Your task to perform on an android device: What is the recent news? Image 0: 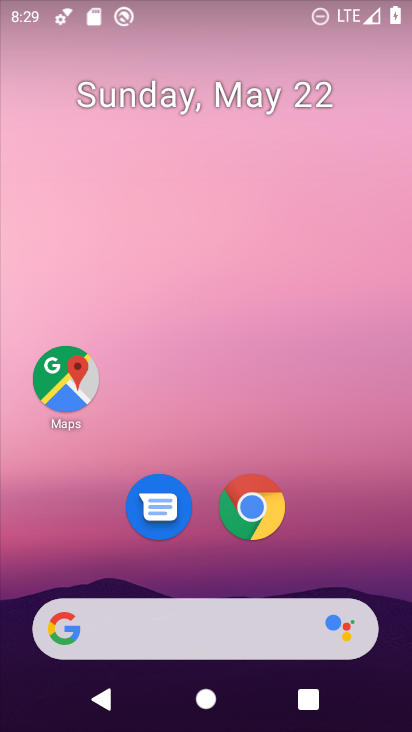
Step 0: click (251, 639)
Your task to perform on an android device: What is the recent news? Image 1: 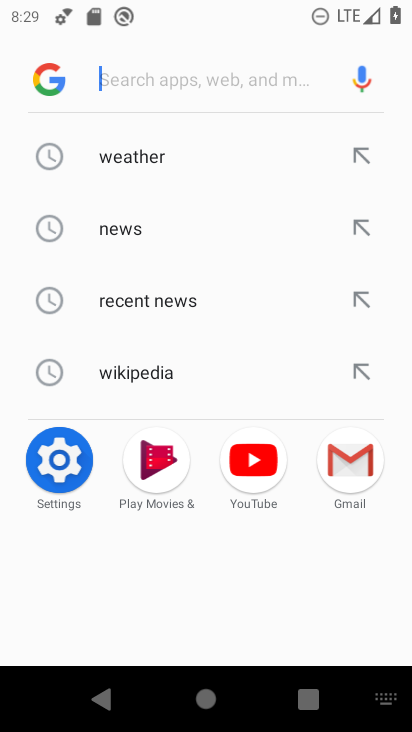
Step 1: type " What is the recent news?"
Your task to perform on an android device: What is the recent news? Image 2: 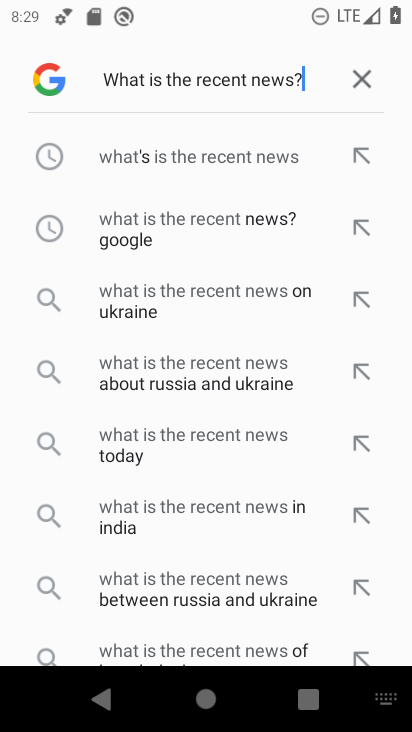
Step 2: click (194, 154)
Your task to perform on an android device: What is the recent news? Image 3: 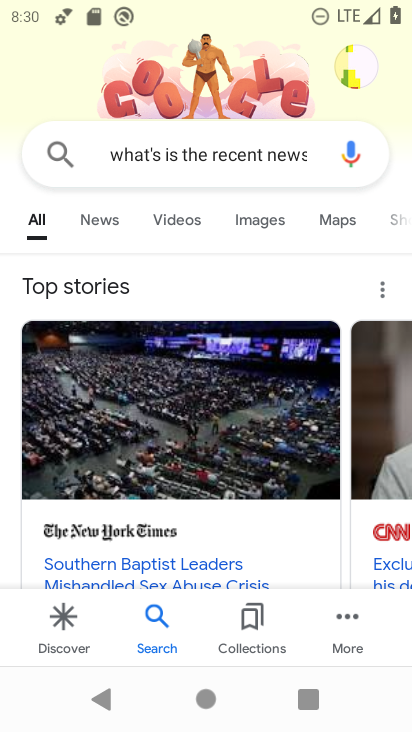
Step 3: task complete